Your task to perform on an android device: Go to battery settings Image 0: 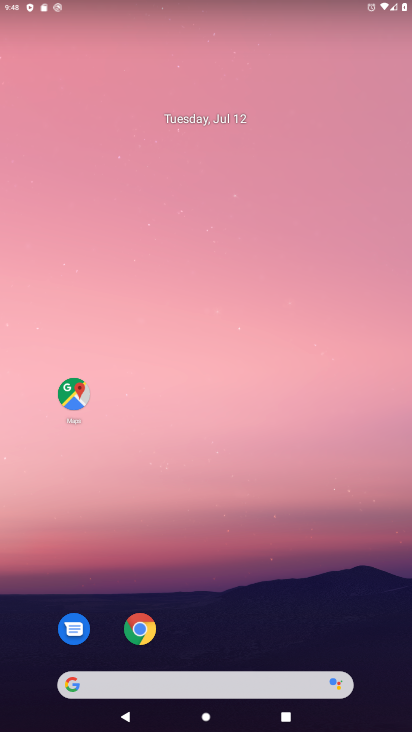
Step 0: drag from (377, 637) to (353, 79)
Your task to perform on an android device: Go to battery settings Image 1: 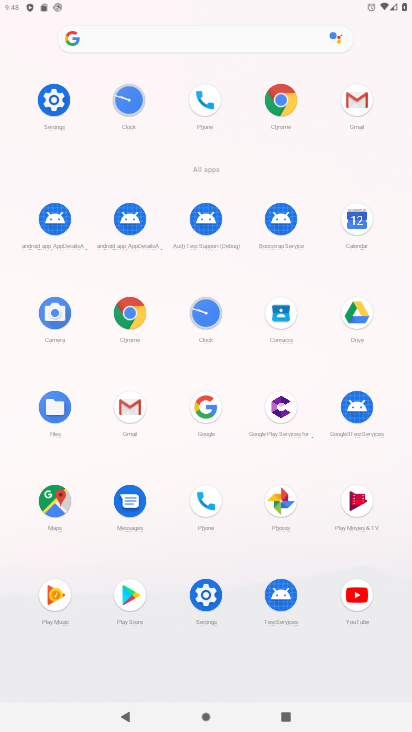
Step 1: click (207, 591)
Your task to perform on an android device: Go to battery settings Image 2: 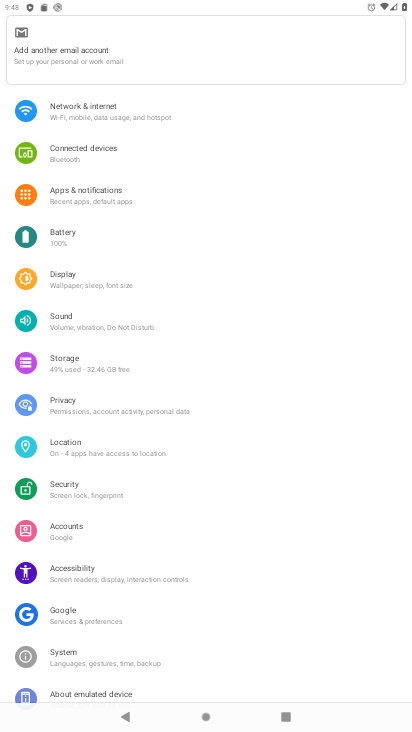
Step 2: click (60, 236)
Your task to perform on an android device: Go to battery settings Image 3: 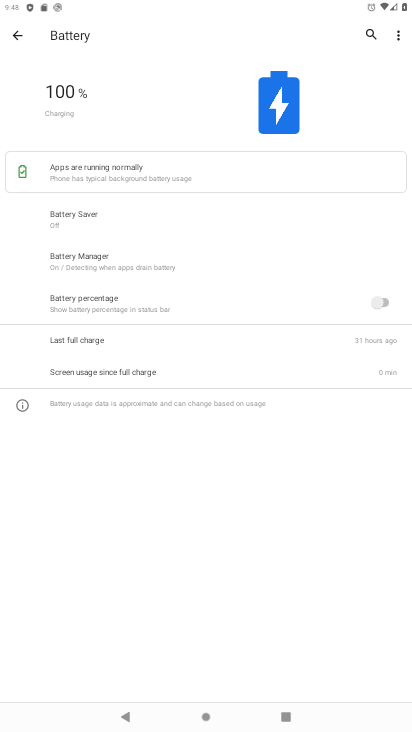
Step 3: task complete